Your task to perform on an android device: When is my next meeting? Image 0: 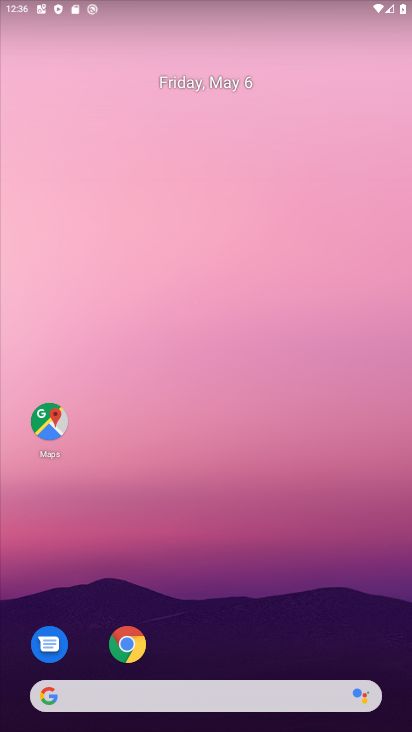
Step 0: drag from (266, 720) to (257, 15)
Your task to perform on an android device: When is my next meeting? Image 1: 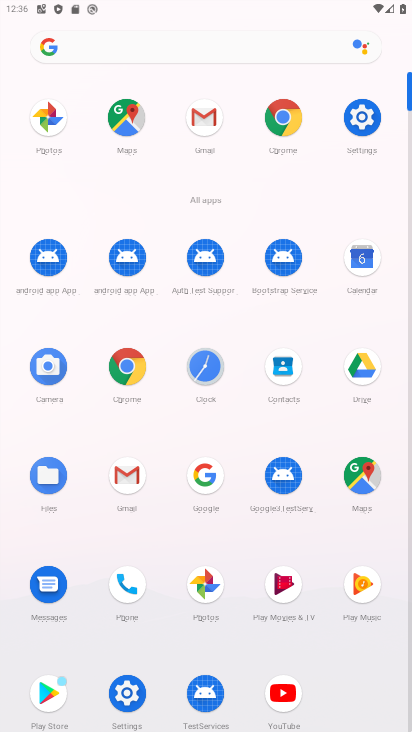
Step 1: click (359, 271)
Your task to perform on an android device: When is my next meeting? Image 2: 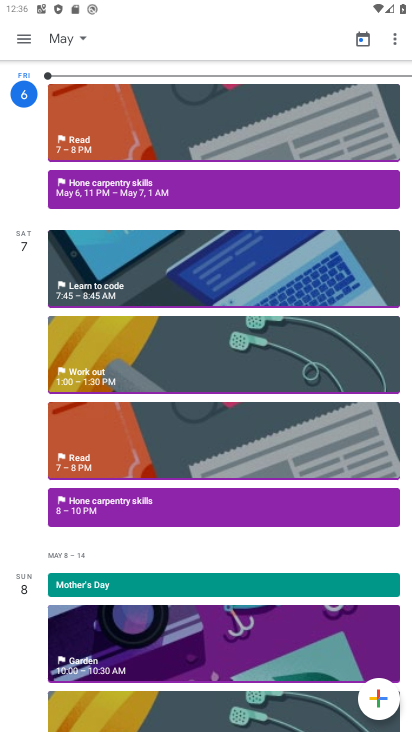
Step 2: task complete